Your task to perform on an android device: manage bookmarks in the chrome app Image 0: 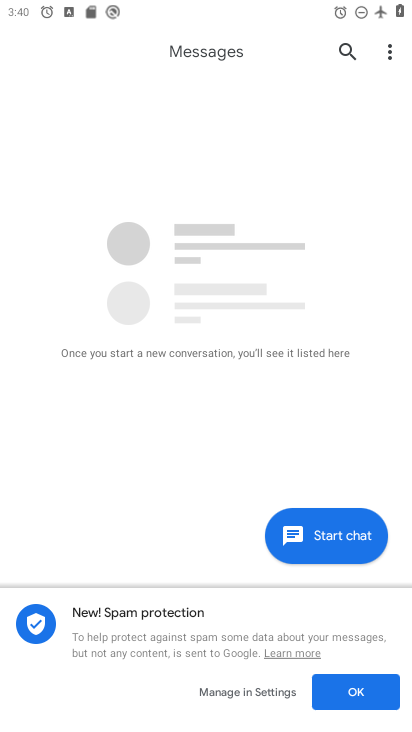
Step 0: press home button
Your task to perform on an android device: manage bookmarks in the chrome app Image 1: 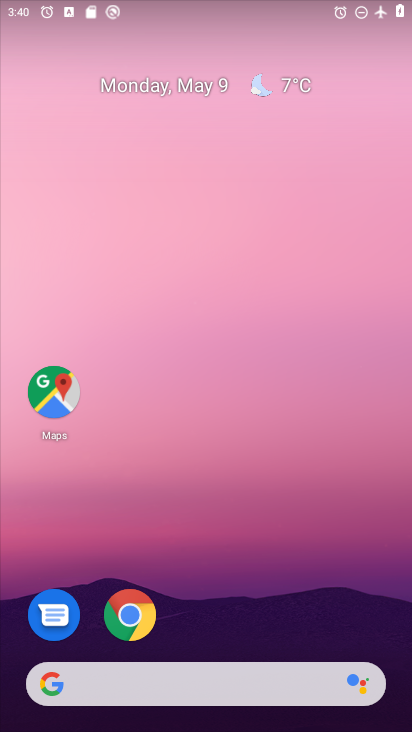
Step 1: click (129, 616)
Your task to perform on an android device: manage bookmarks in the chrome app Image 2: 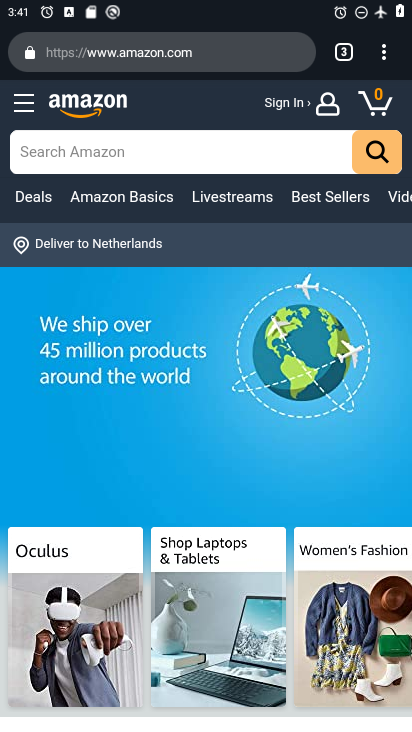
Step 2: click (381, 56)
Your task to perform on an android device: manage bookmarks in the chrome app Image 3: 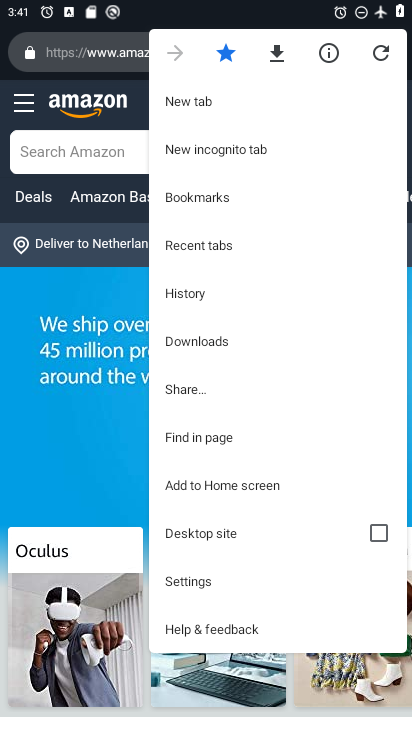
Step 3: click (195, 196)
Your task to perform on an android device: manage bookmarks in the chrome app Image 4: 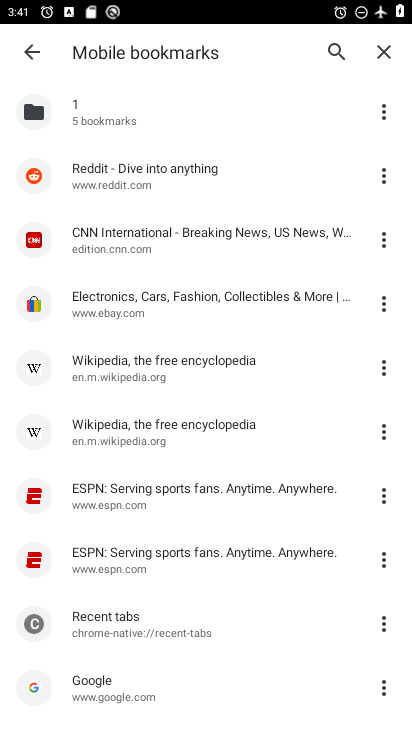
Step 4: click (88, 171)
Your task to perform on an android device: manage bookmarks in the chrome app Image 5: 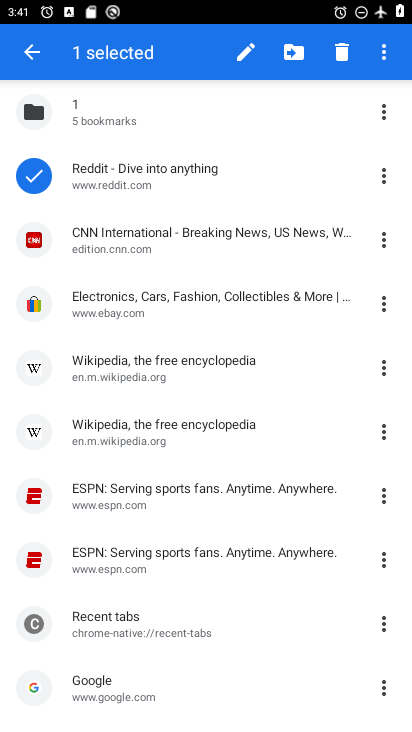
Step 5: click (291, 51)
Your task to perform on an android device: manage bookmarks in the chrome app Image 6: 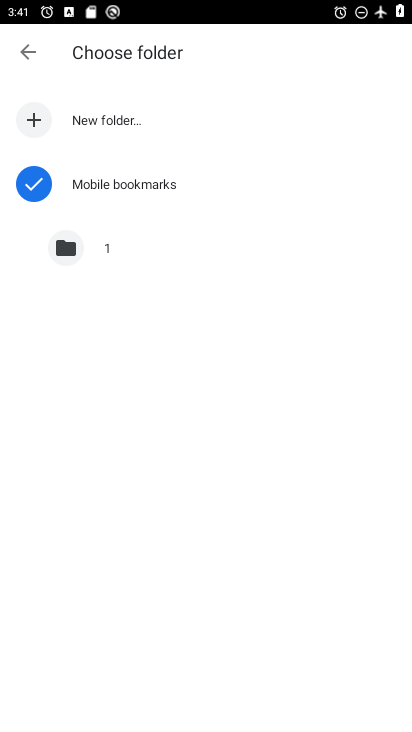
Step 6: click (103, 251)
Your task to perform on an android device: manage bookmarks in the chrome app Image 7: 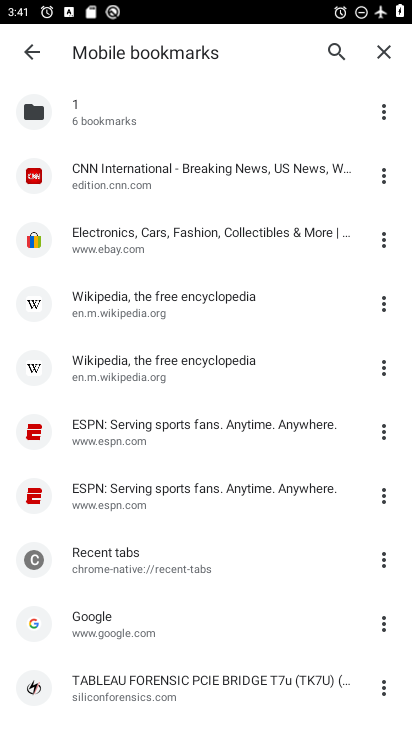
Step 7: task complete